Your task to perform on an android device: check android version Image 0: 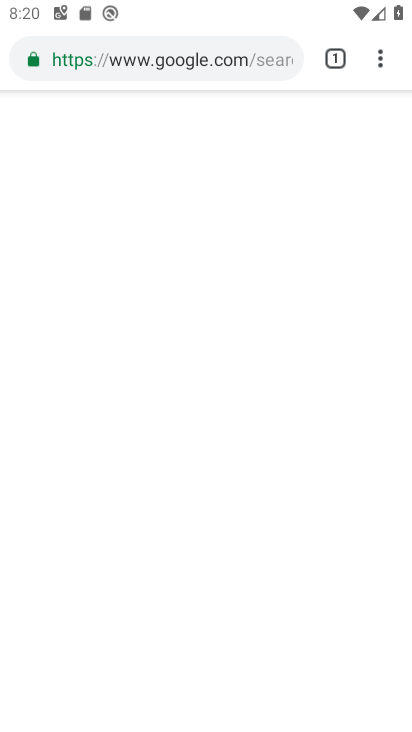
Step 0: press home button
Your task to perform on an android device: check android version Image 1: 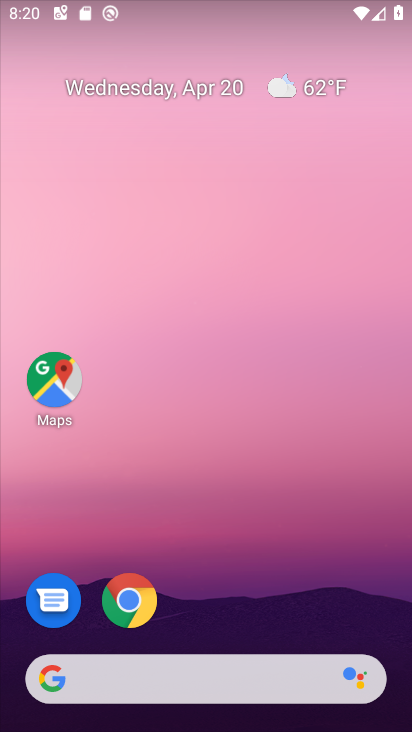
Step 1: drag from (216, 537) to (208, 39)
Your task to perform on an android device: check android version Image 2: 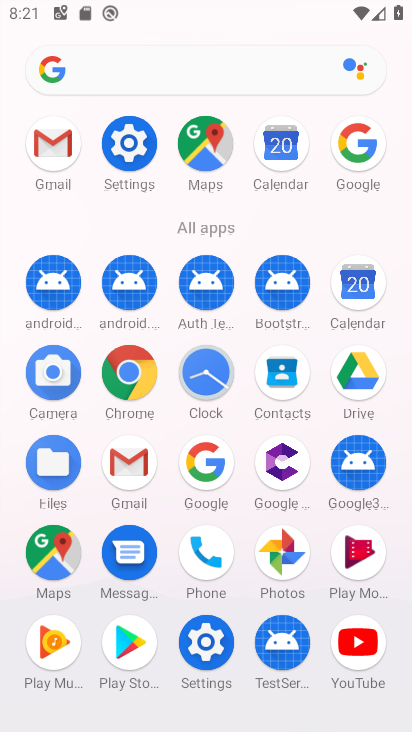
Step 2: click (137, 146)
Your task to perform on an android device: check android version Image 3: 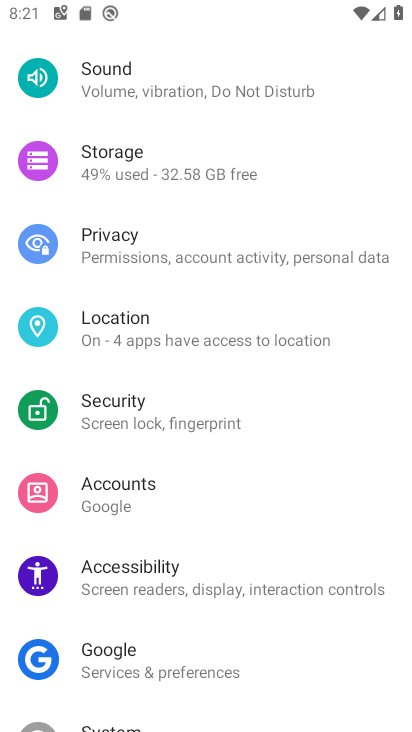
Step 3: drag from (223, 672) to (219, 212)
Your task to perform on an android device: check android version Image 4: 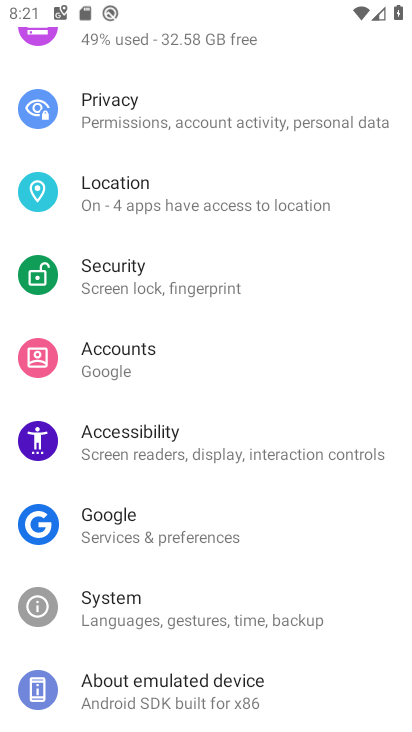
Step 4: click (198, 700)
Your task to perform on an android device: check android version Image 5: 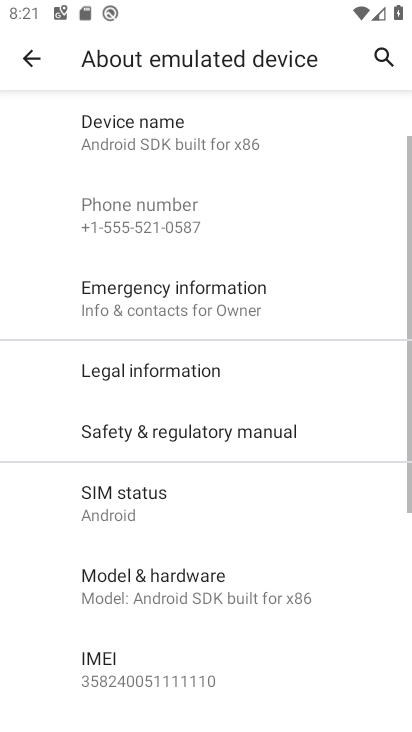
Step 5: drag from (215, 558) to (235, 159)
Your task to perform on an android device: check android version Image 6: 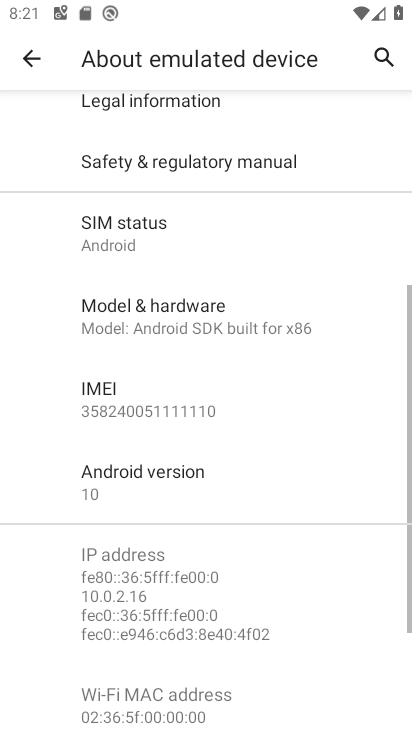
Step 6: click (180, 471)
Your task to perform on an android device: check android version Image 7: 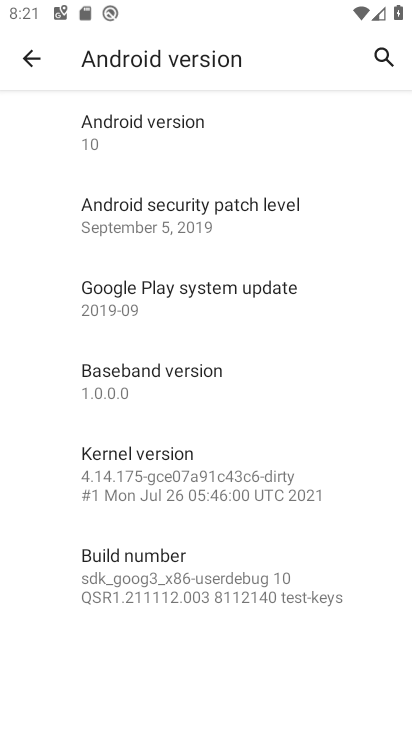
Step 7: task complete